Your task to perform on an android device: change text size in settings app Image 0: 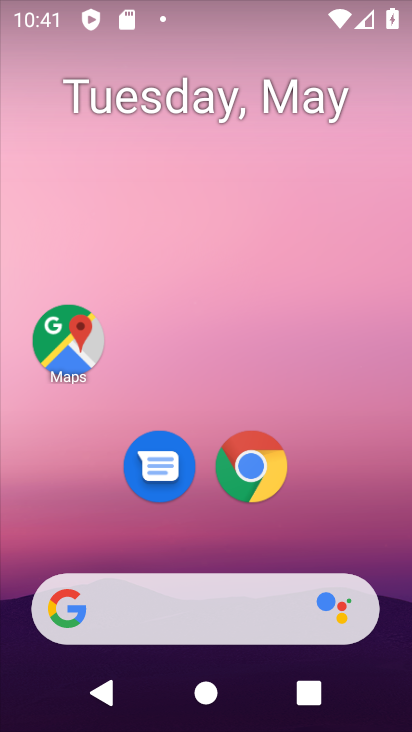
Step 0: drag from (368, 508) to (282, 218)
Your task to perform on an android device: change text size in settings app Image 1: 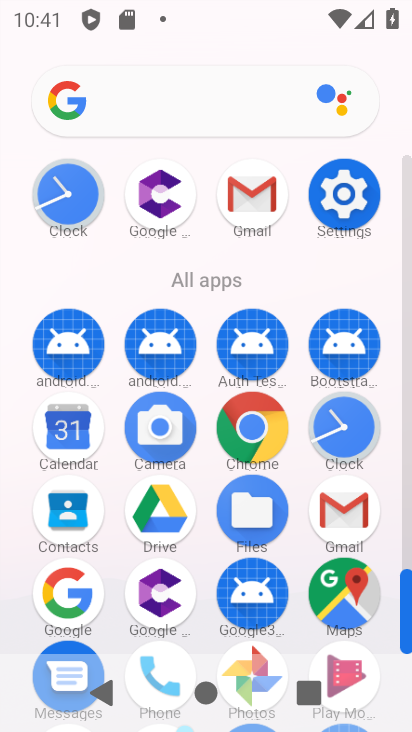
Step 1: click (346, 218)
Your task to perform on an android device: change text size in settings app Image 2: 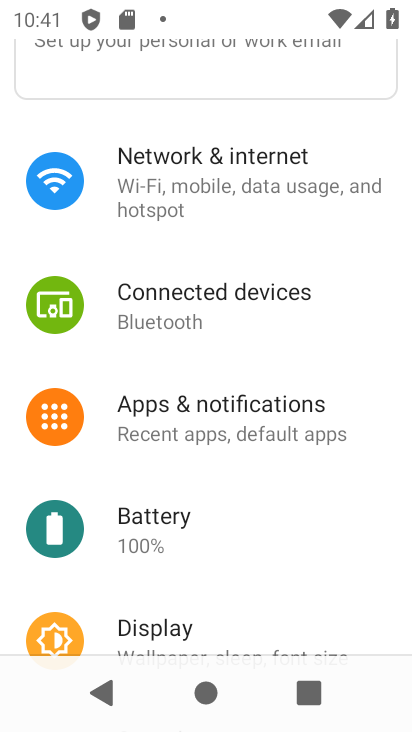
Step 2: drag from (247, 565) to (190, 196)
Your task to perform on an android device: change text size in settings app Image 3: 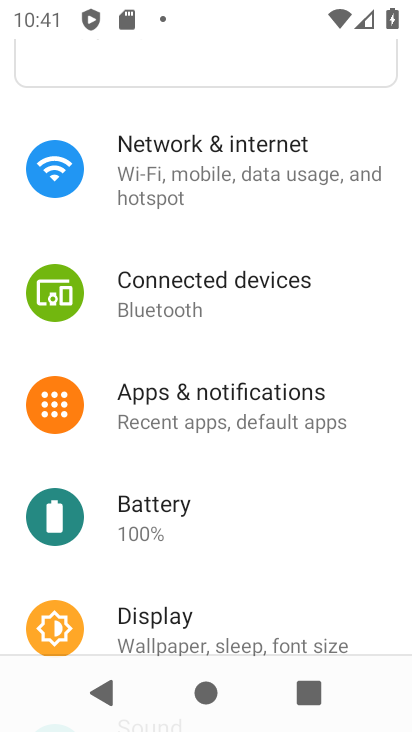
Step 3: click (174, 613)
Your task to perform on an android device: change text size in settings app Image 4: 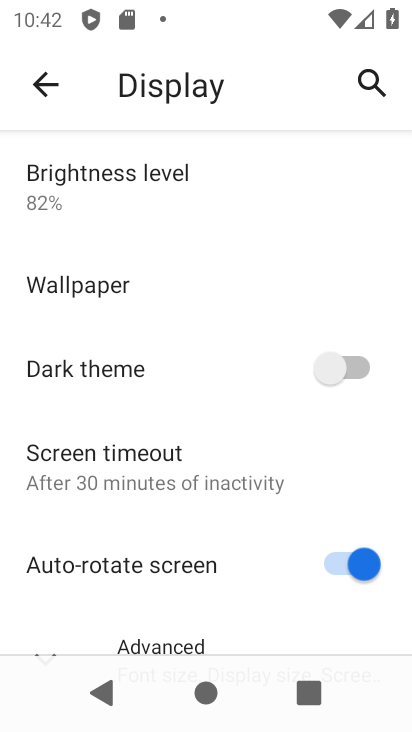
Step 4: drag from (204, 614) to (169, 289)
Your task to perform on an android device: change text size in settings app Image 5: 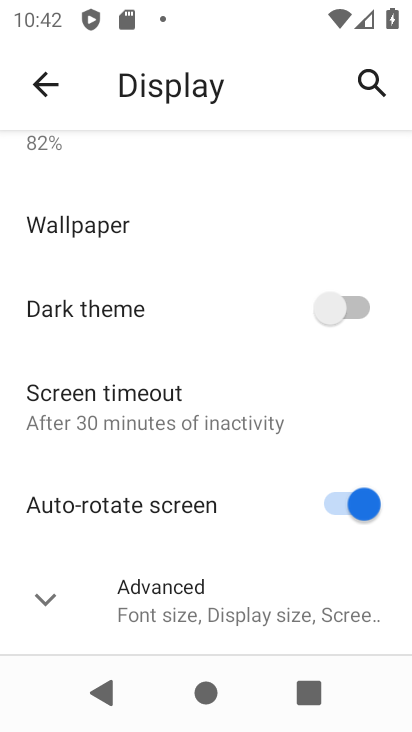
Step 5: click (295, 606)
Your task to perform on an android device: change text size in settings app Image 6: 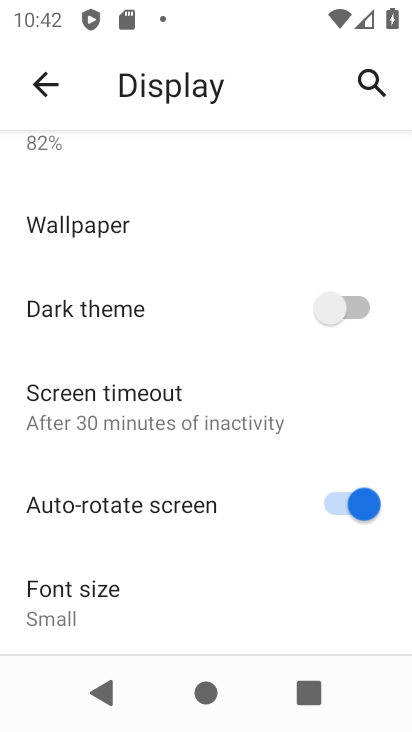
Step 6: click (222, 605)
Your task to perform on an android device: change text size in settings app Image 7: 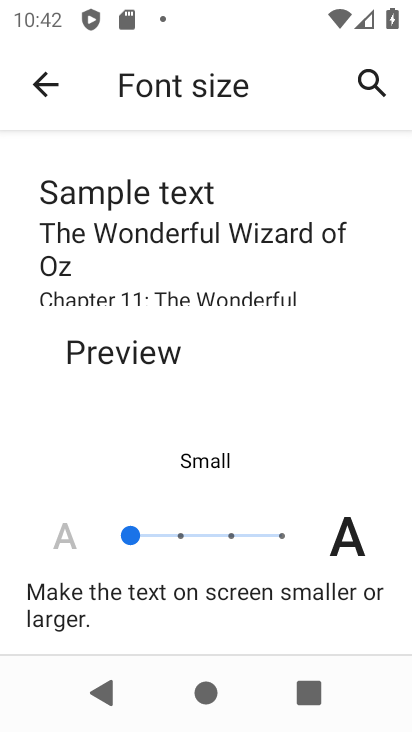
Step 7: click (203, 547)
Your task to perform on an android device: change text size in settings app Image 8: 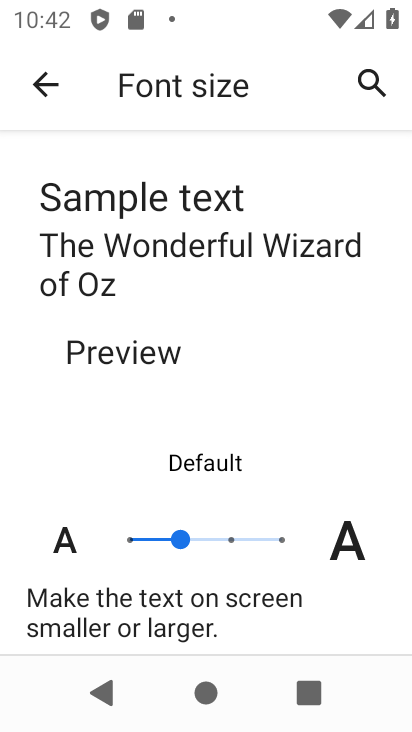
Step 8: task complete